Your task to perform on an android device: Open Chrome and go to the settings page Image 0: 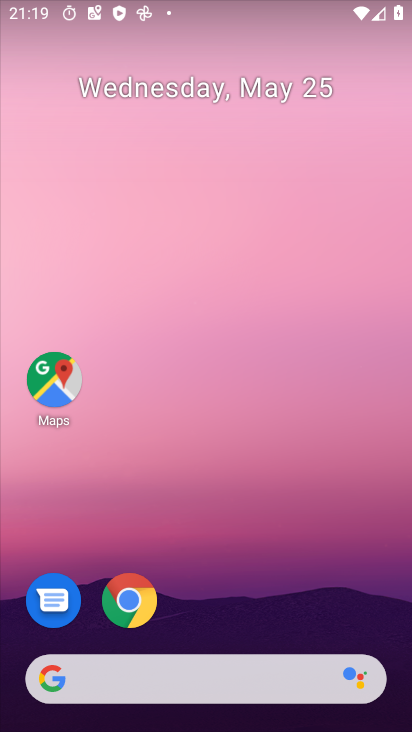
Step 0: drag from (298, 587) to (278, 137)
Your task to perform on an android device: Open Chrome and go to the settings page Image 1: 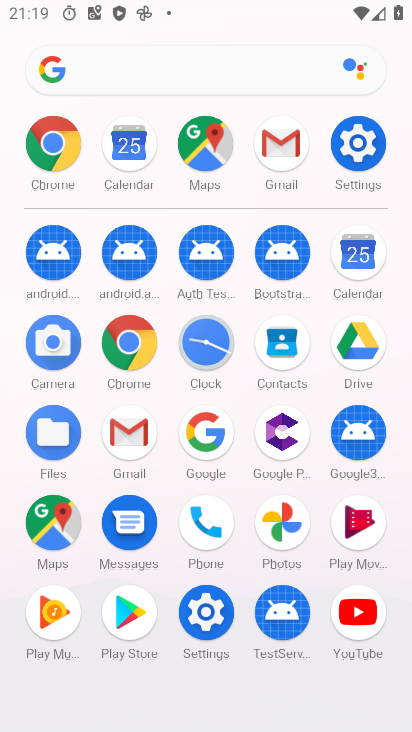
Step 1: click (123, 340)
Your task to perform on an android device: Open Chrome and go to the settings page Image 2: 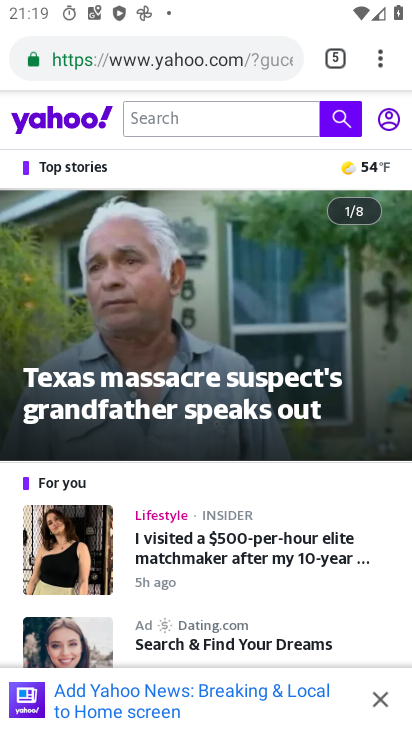
Step 2: task complete